Your task to perform on an android device: Do I have any events today? Image 0: 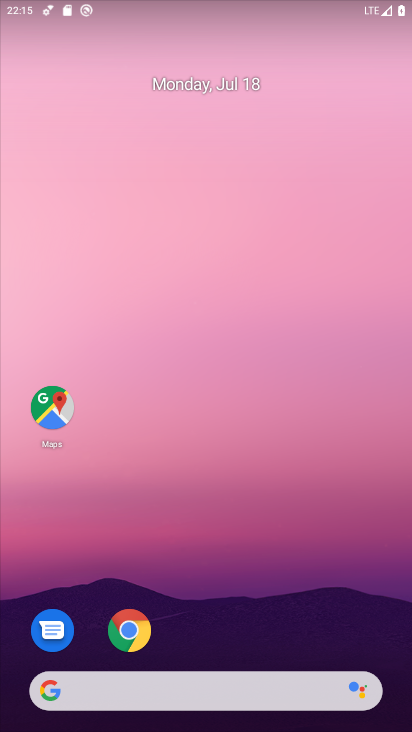
Step 0: drag from (214, 655) to (227, 212)
Your task to perform on an android device: Do I have any events today? Image 1: 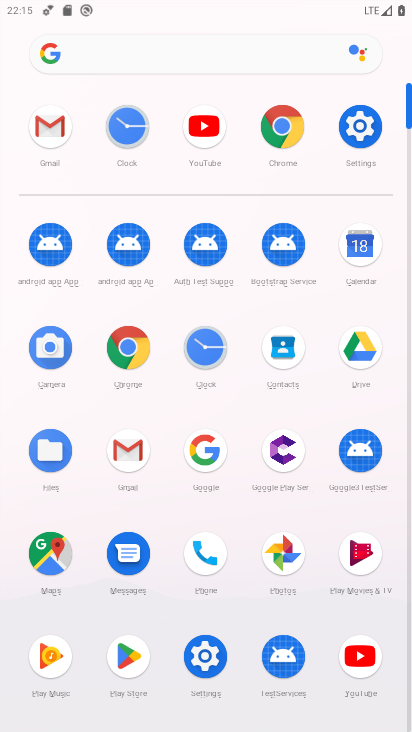
Step 1: click (365, 234)
Your task to perform on an android device: Do I have any events today? Image 2: 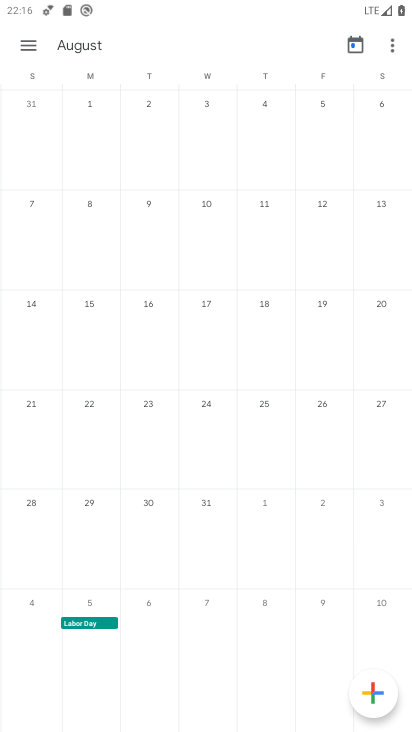
Step 2: drag from (39, 244) to (398, 248)
Your task to perform on an android device: Do I have any events today? Image 3: 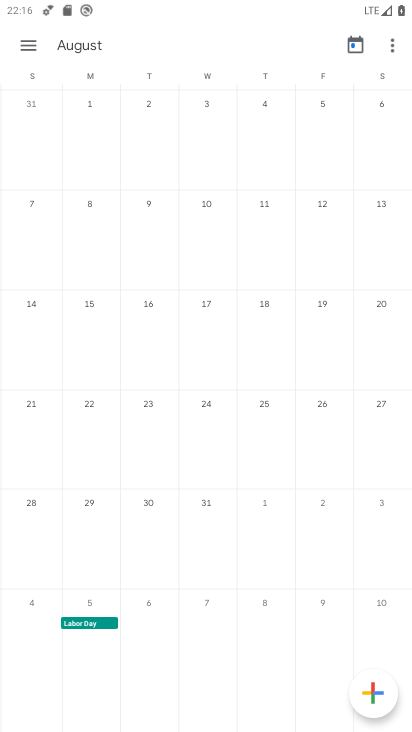
Step 3: drag from (63, 359) to (410, 405)
Your task to perform on an android device: Do I have any events today? Image 4: 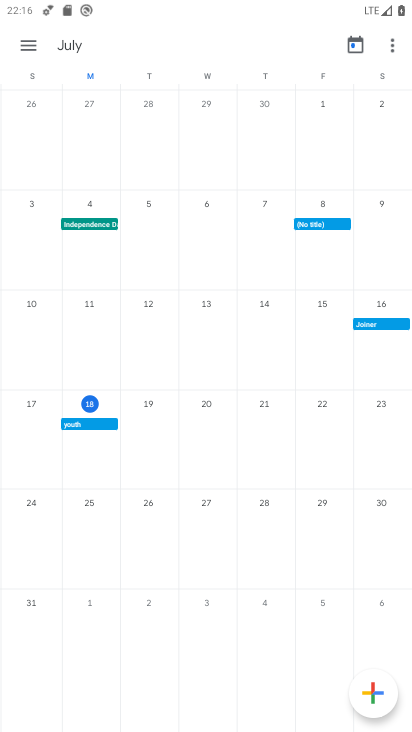
Step 4: click (154, 432)
Your task to perform on an android device: Do I have any events today? Image 5: 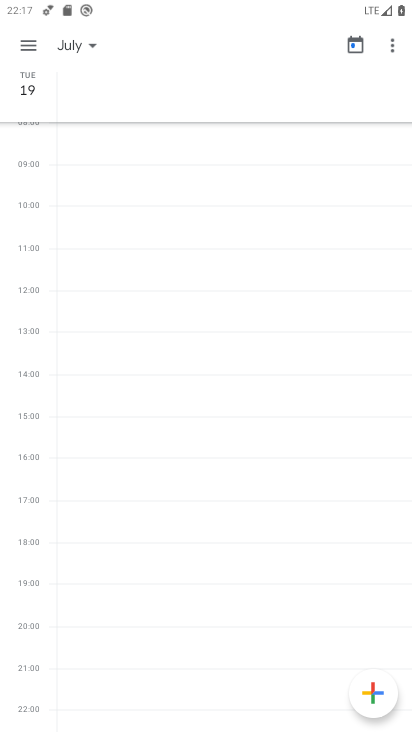
Step 5: task complete